Your task to perform on an android device: install app "Spotify: Music and Podcasts" Image 0: 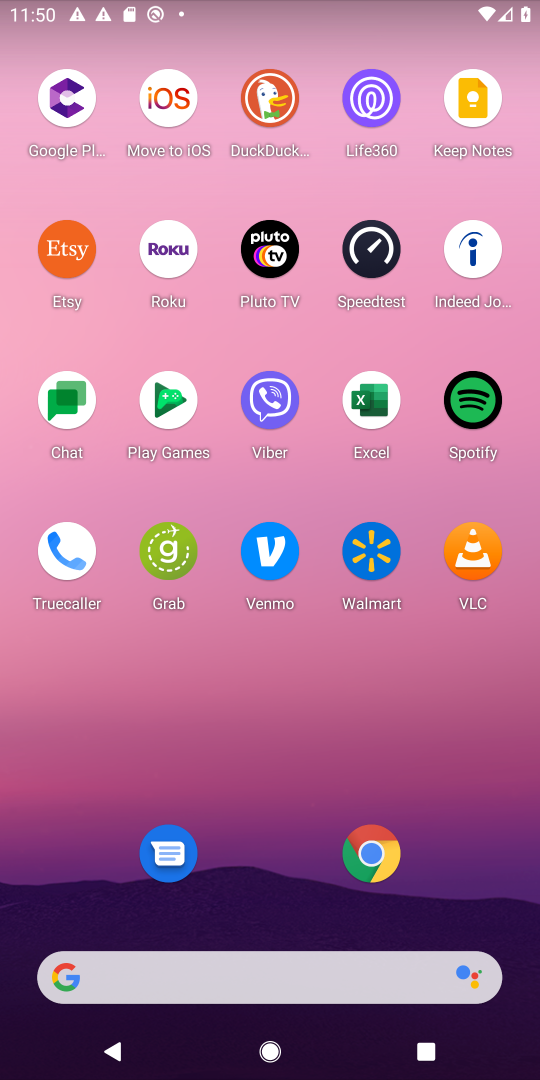
Step 0: drag from (306, 968) to (305, 7)
Your task to perform on an android device: install app "Spotify: Music and Podcasts" Image 1: 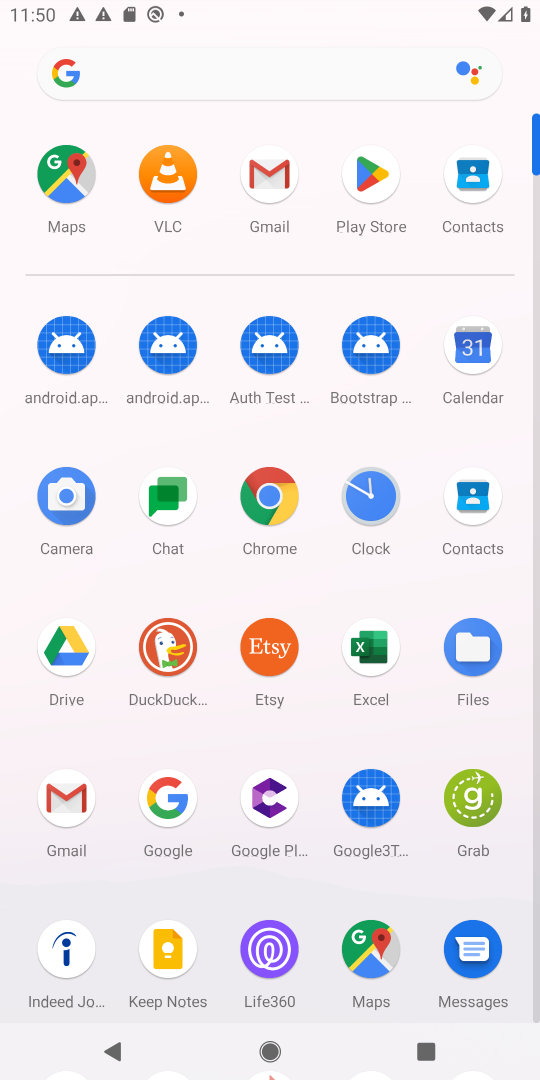
Step 1: click (369, 164)
Your task to perform on an android device: install app "Spotify: Music and Podcasts" Image 2: 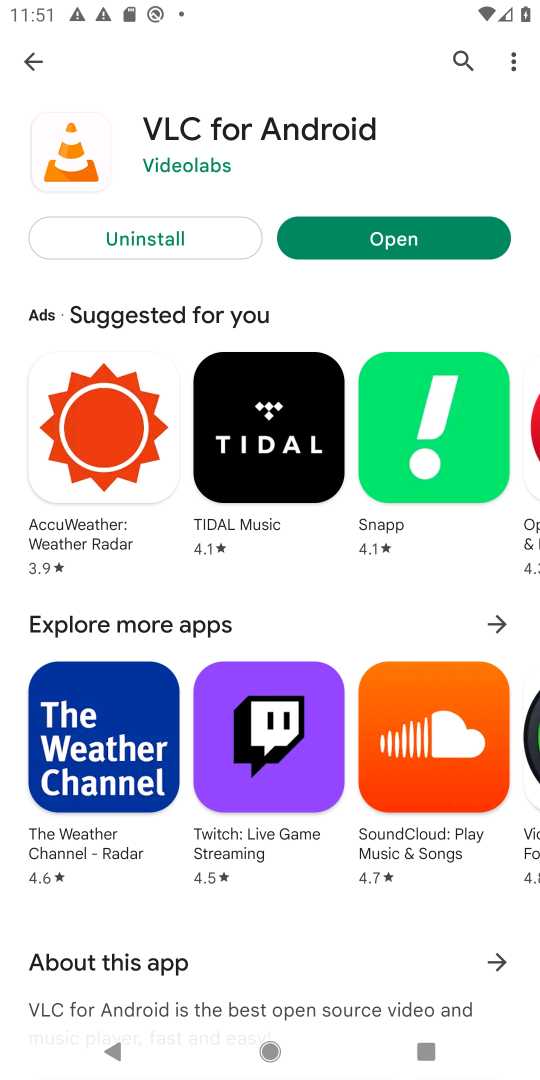
Step 2: click (450, 55)
Your task to perform on an android device: install app "Spotify: Music and Podcasts" Image 3: 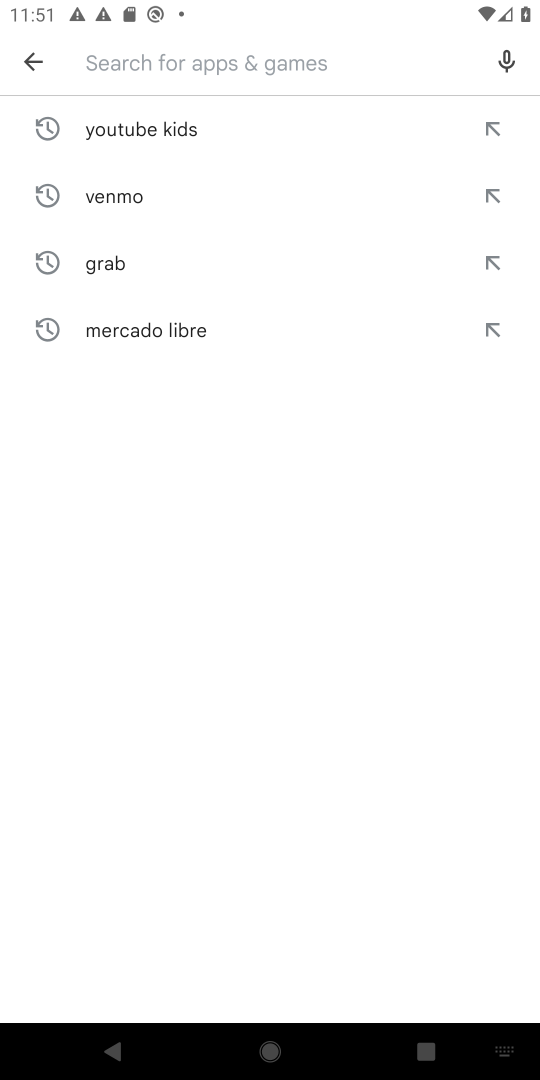
Step 3: type "Spotify: Music and Podcasts"
Your task to perform on an android device: install app "Spotify: Music and Podcasts" Image 4: 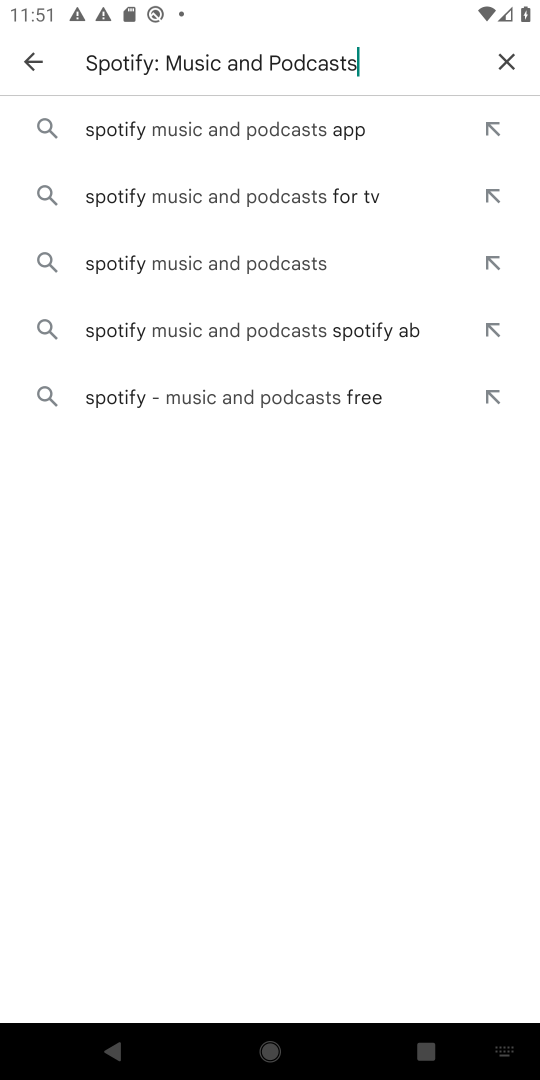
Step 4: click (213, 134)
Your task to perform on an android device: install app "Spotify: Music and Podcasts" Image 5: 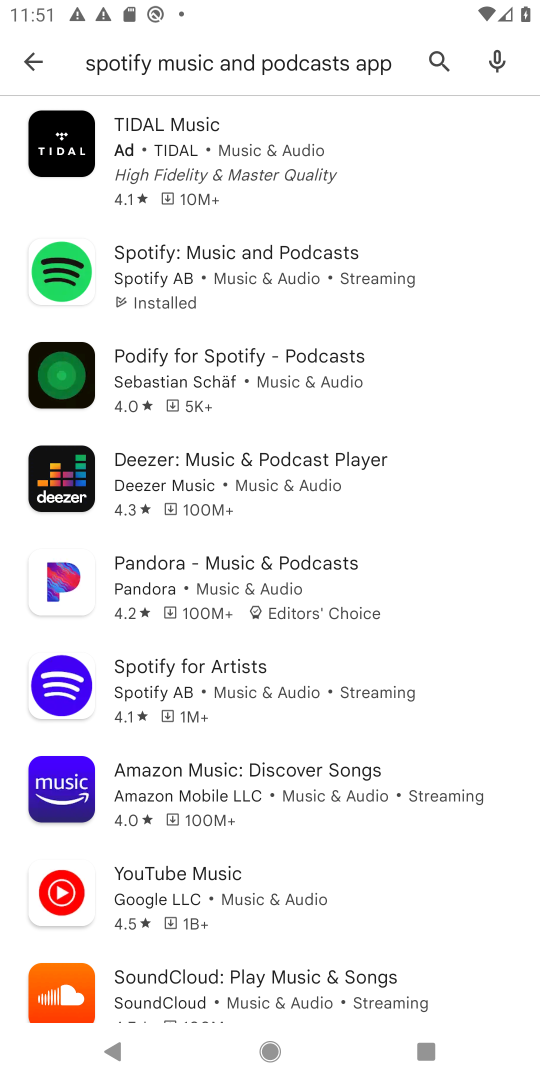
Step 5: click (185, 255)
Your task to perform on an android device: install app "Spotify: Music and Podcasts" Image 6: 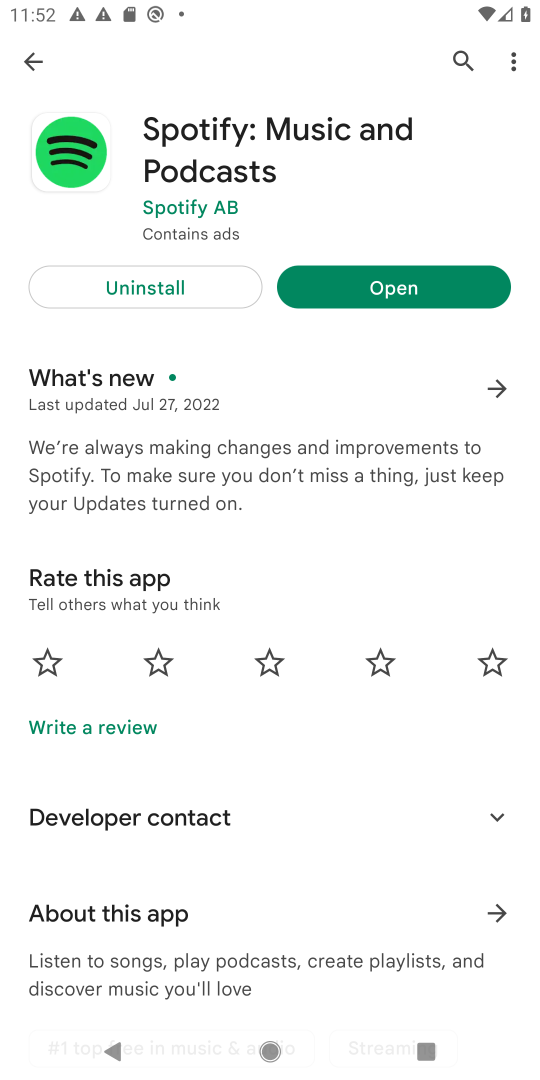
Step 6: task complete